Your task to perform on an android device: Open sound settings Image 0: 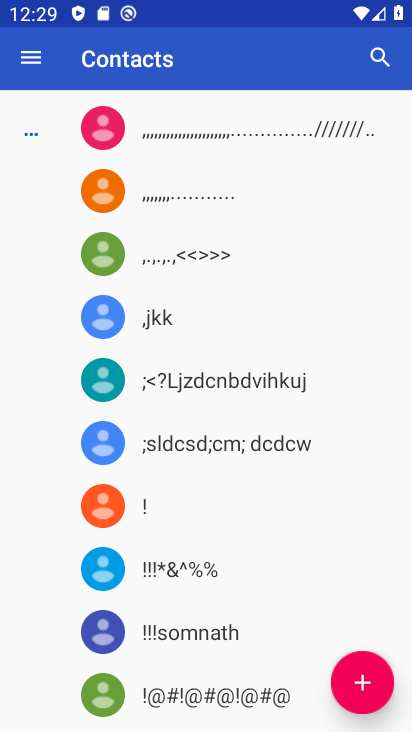
Step 0: task impossible